Your task to perform on an android device: turn notification dots on Image 0: 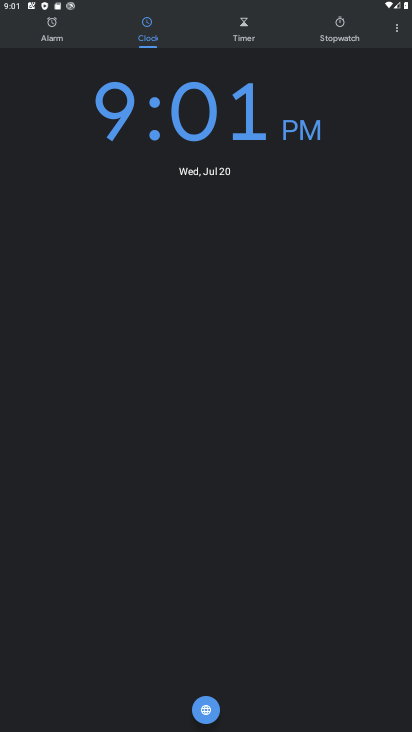
Step 0: press home button
Your task to perform on an android device: turn notification dots on Image 1: 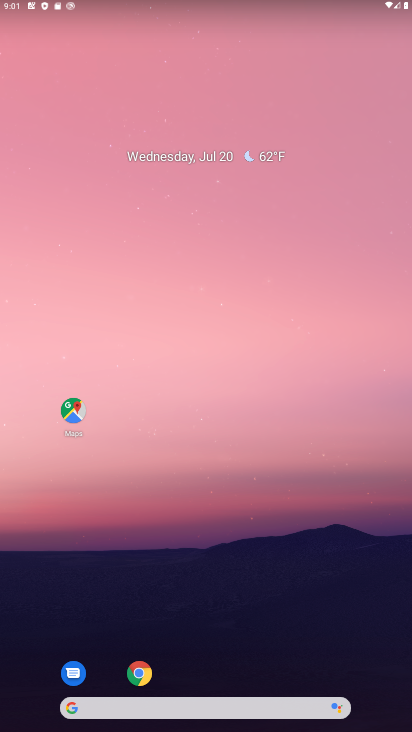
Step 1: drag from (387, 700) to (274, 44)
Your task to perform on an android device: turn notification dots on Image 2: 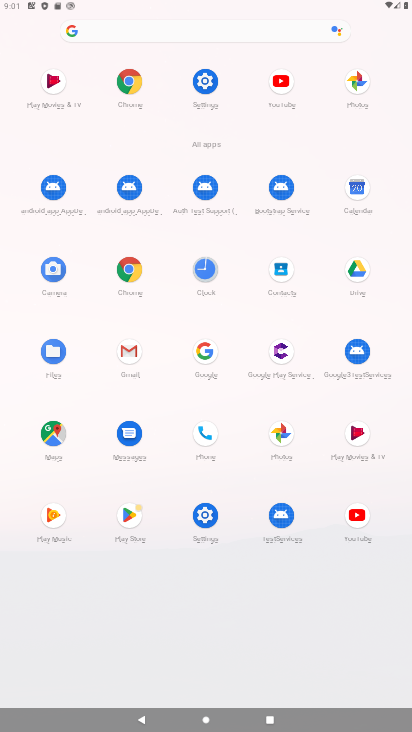
Step 2: click (197, 87)
Your task to perform on an android device: turn notification dots on Image 3: 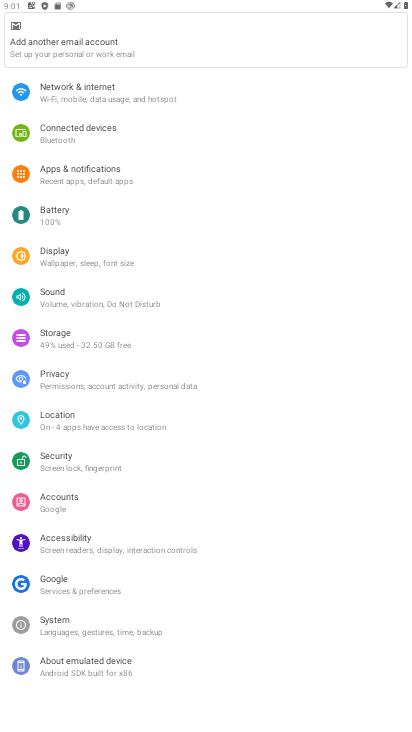
Step 3: click (81, 175)
Your task to perform on an android device: turn notification dots on Image 4: 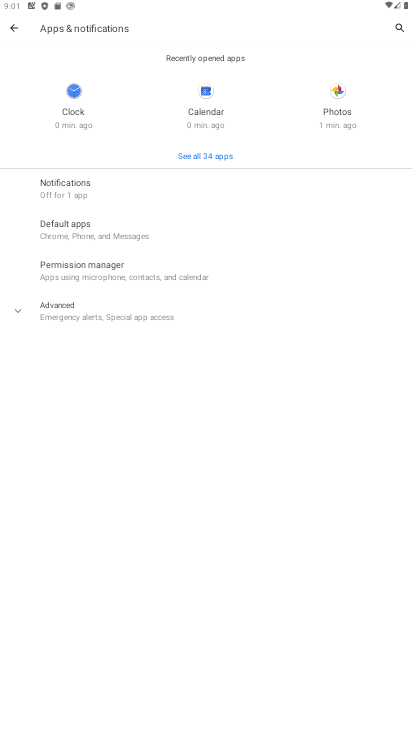
Step 4: click (51, 201)
Your task to perform on an android device: turn notification dots on Image 5: 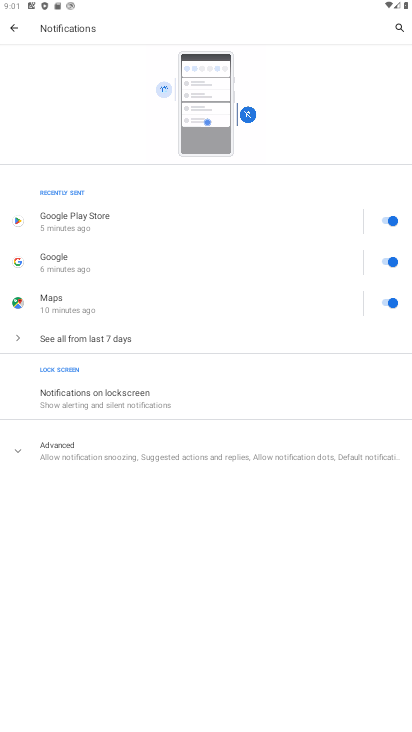
Step 5: click (16, 457)
Your task to perform on an android device: turn notification dots on Image 6: 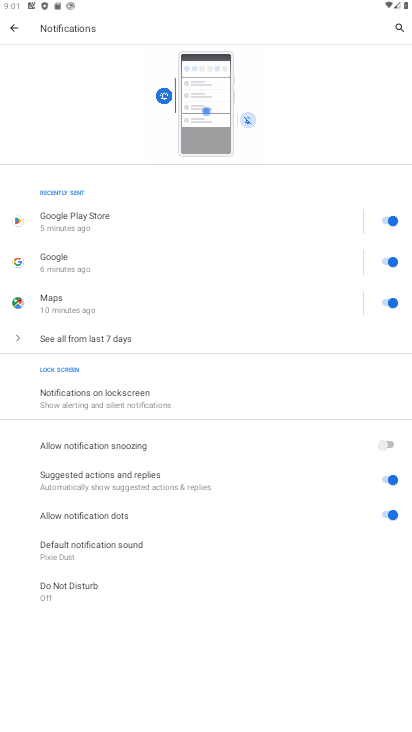
Step 6: task complete